Your task to perform on an android device: Open calendar and show me the second week of next month Image 0: 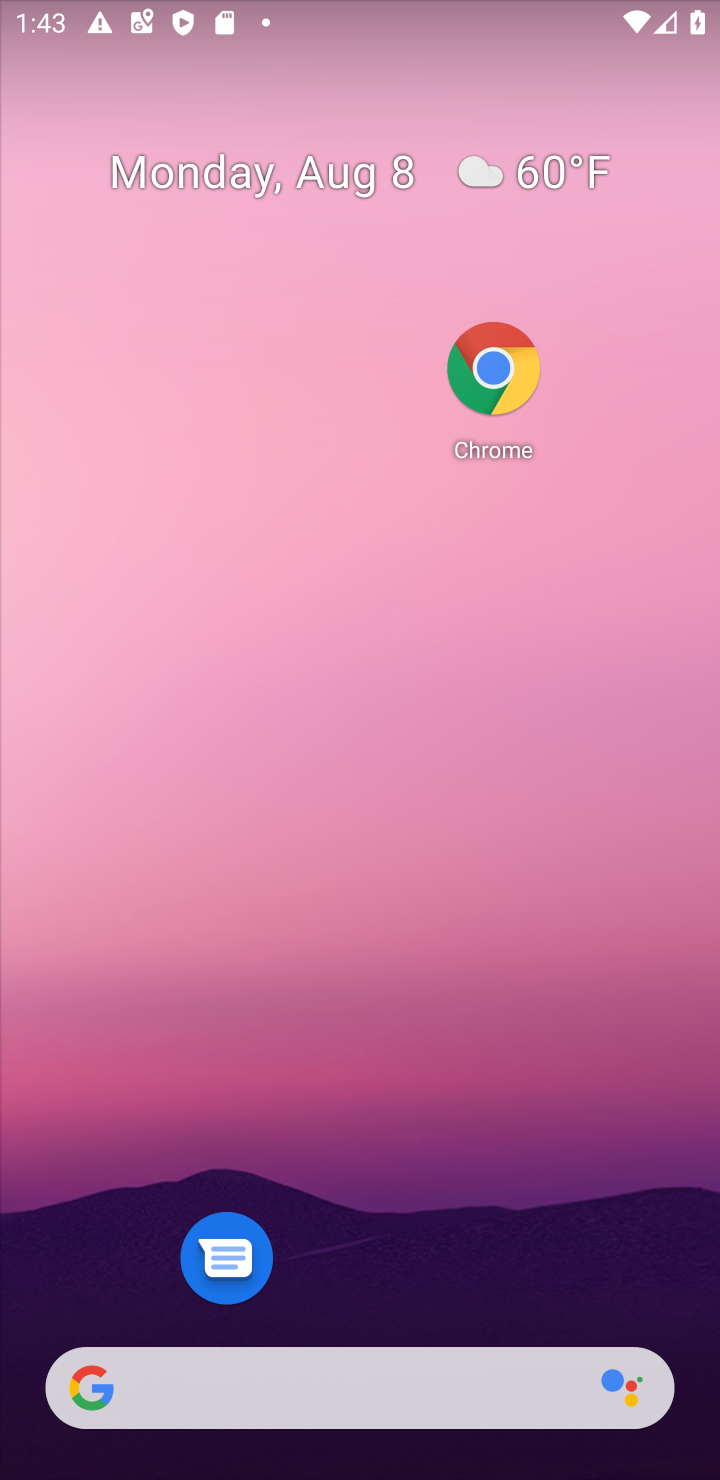
Step 0: drag from (381, 314) to (177, 13)
Your task to perform on an android device: Open calendar and show me the second week of next month Image 1: 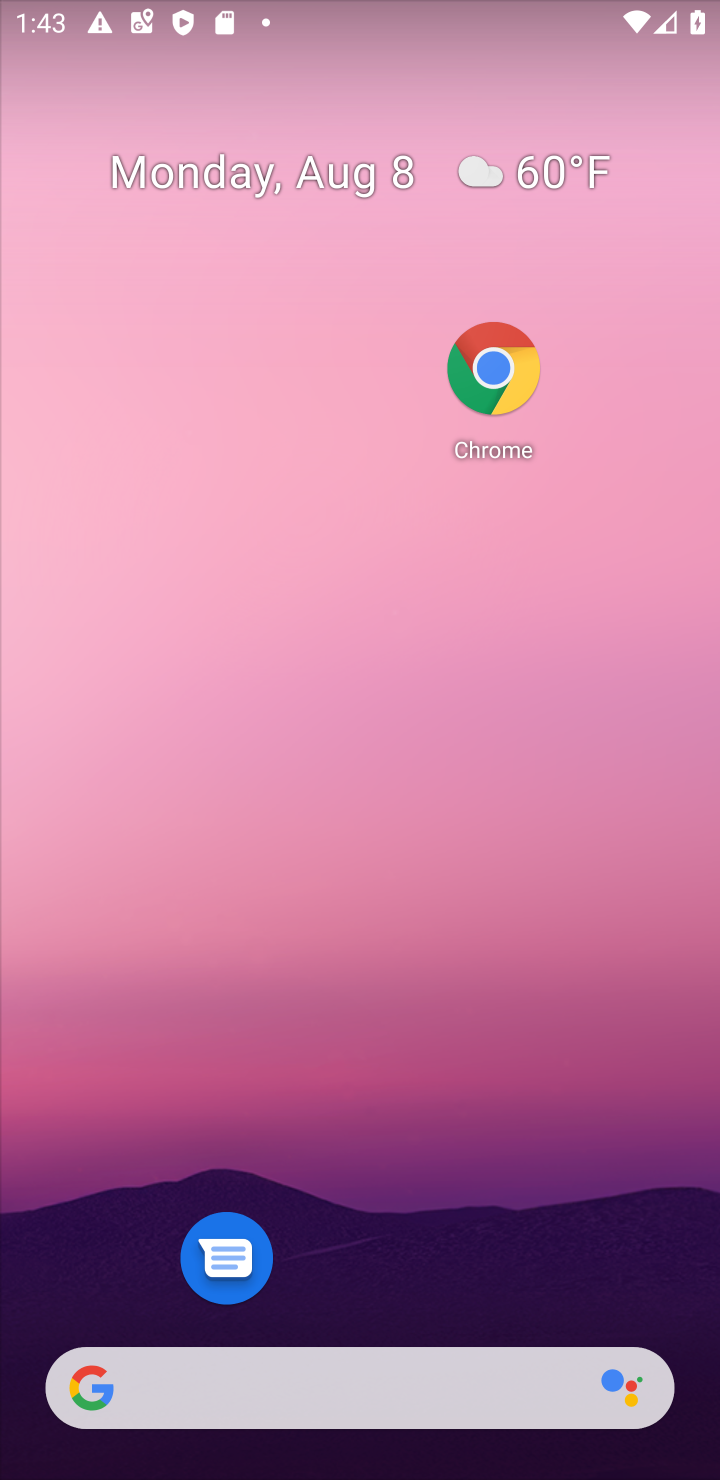
Step 1: drag from (429, 1271) to (346, 0)
Your task to perform on an android device: Open calendar and show me the second week of next month Image 2: 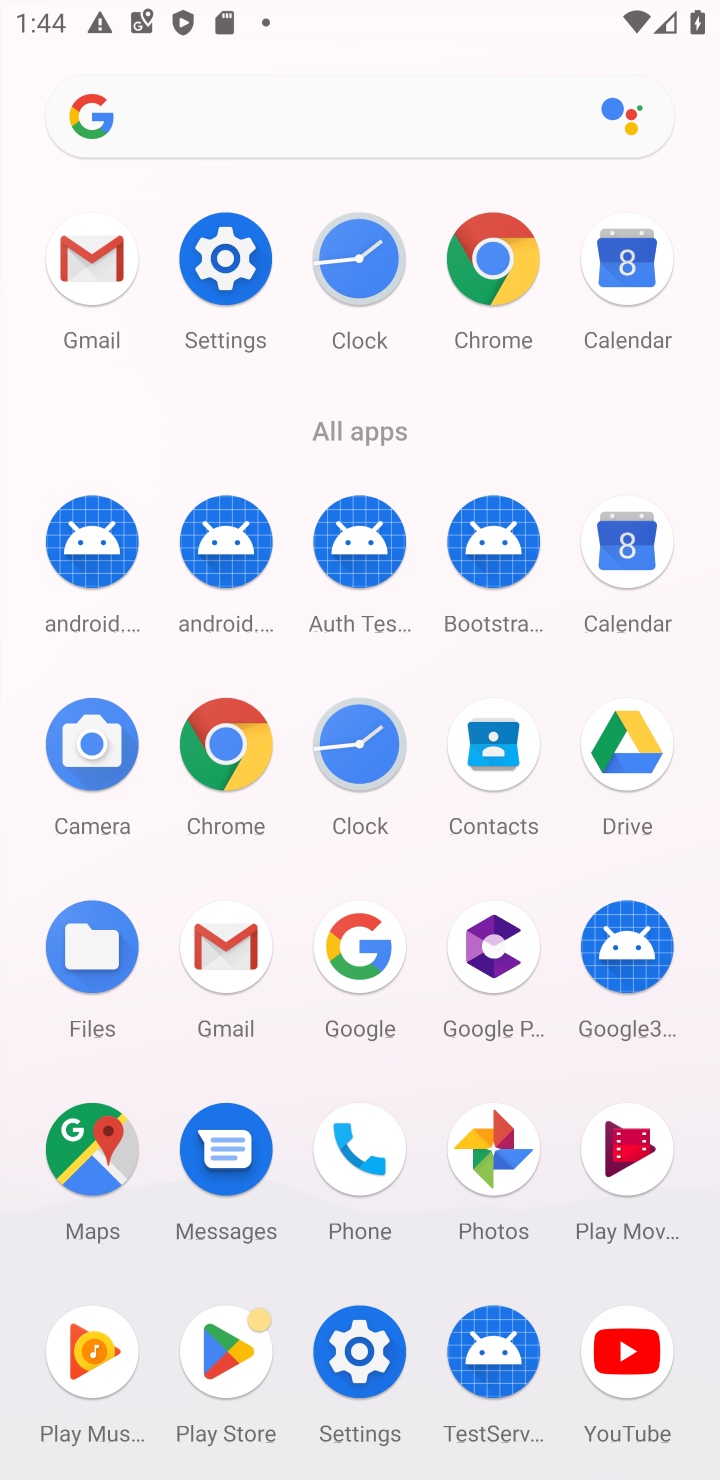
Step 2: click (608, 568)
Your task to perform on an android device: Open calendar and show me the second week of next month Image 3: 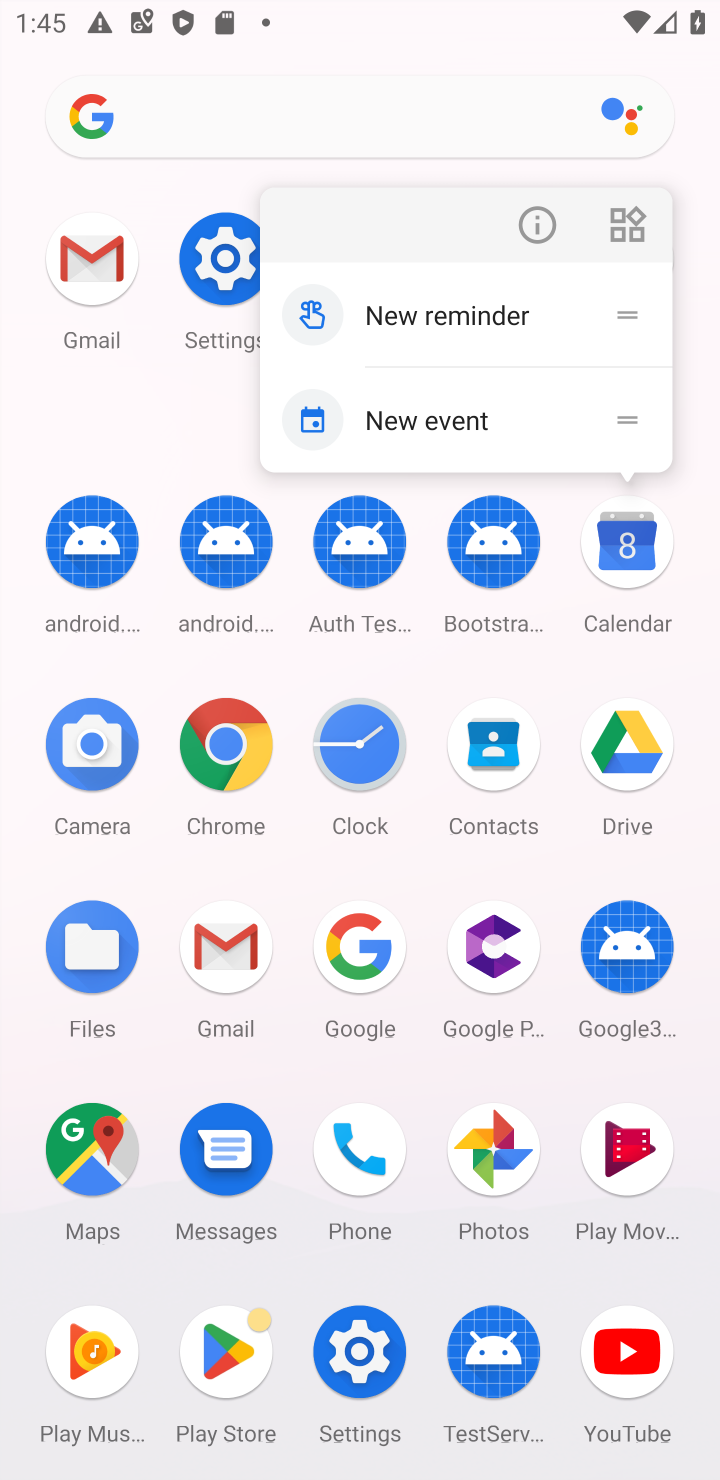
Step 3: click (643, 569)
Your task to perform on an android device: Open calendar and show me the second week of next month Image 4: 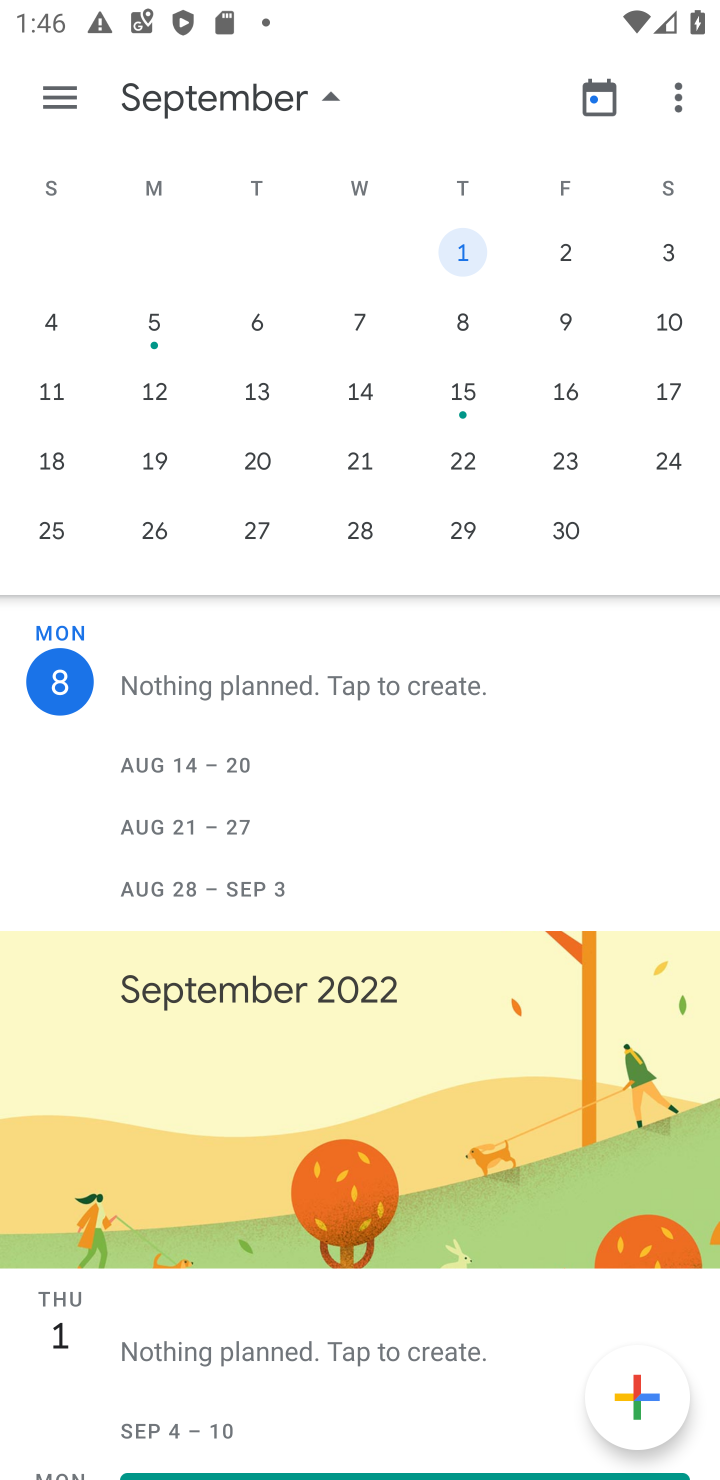
Step 4: click (47, 332)
Your task to perform on an android device: Open calendar and show me the second week of next month Image 5: 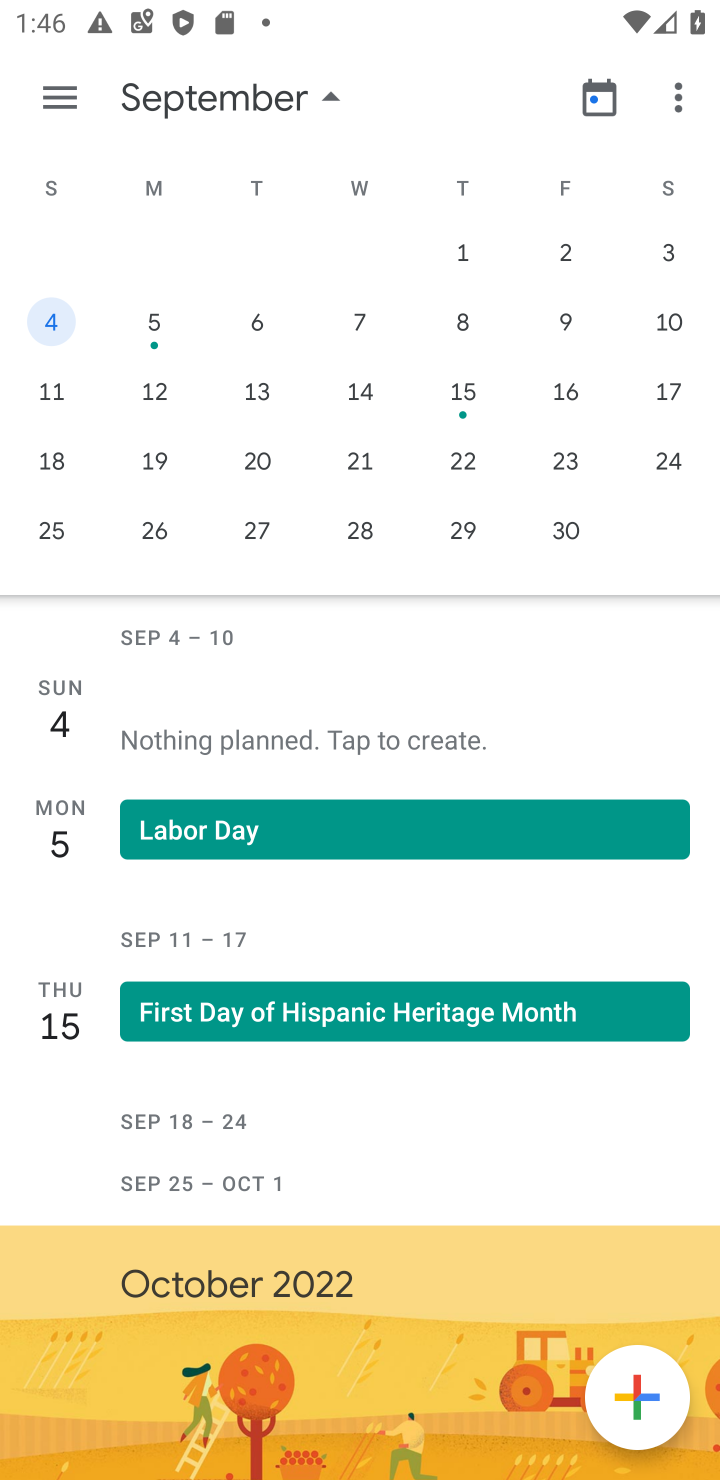
Step 5: task complete